Your task to perform on an android device: turn pop-ups on in chrome Image 0: 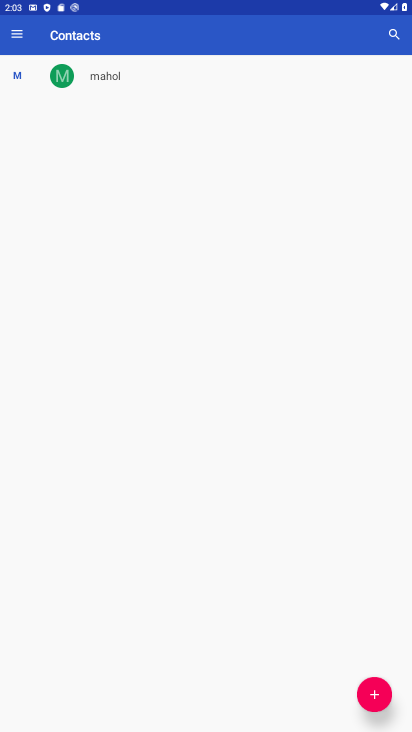
Step 0: press home button
Your task to perform on an android device: turn pop-ups on in chrome Image 1: 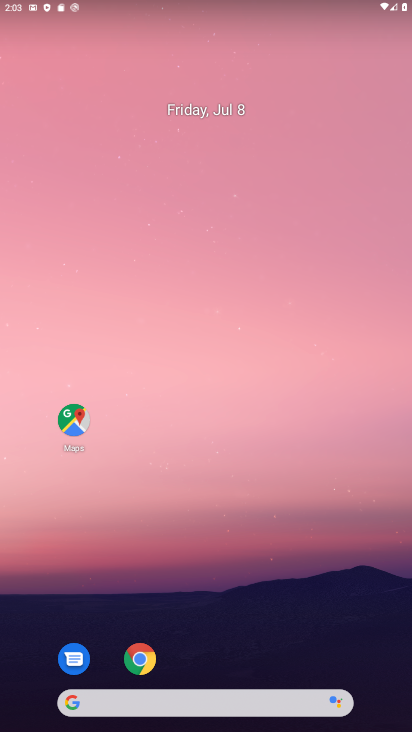
Step 1: drag from (317, 624) to (197, 89)
Your task to perform on an android device: turn pop-ups on in chrome Image 2: 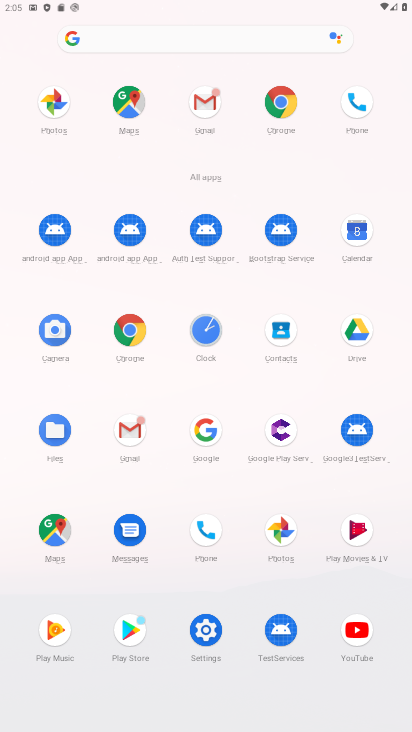
Step 2: click (275, 96)
Your task to perform on an android device: turn pop-ups on in chrome Image 3: 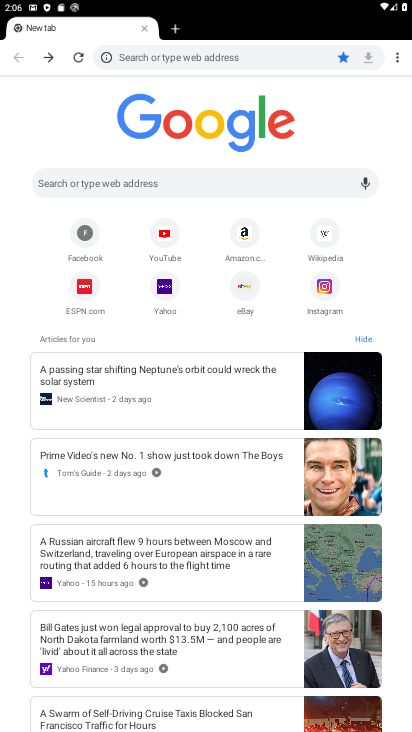
Step 3: drag from (400, 54) to (289, 298)
Your task to perform on an android device: turn pop-ups on in chrome Image 4: 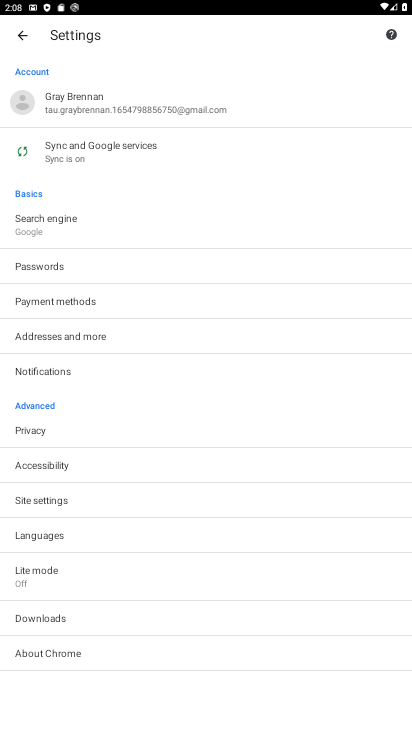
Step 4: click (120, 505)
Your task to perform on an android device: turn pop-ups on in chrome Image 5: 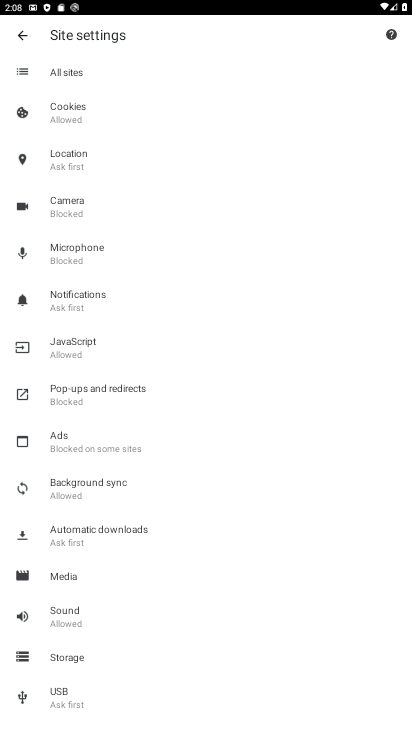
Step 5: click (93, 388)
Your task to perform on an android device: turn pop-ups on in chrome Image 6: 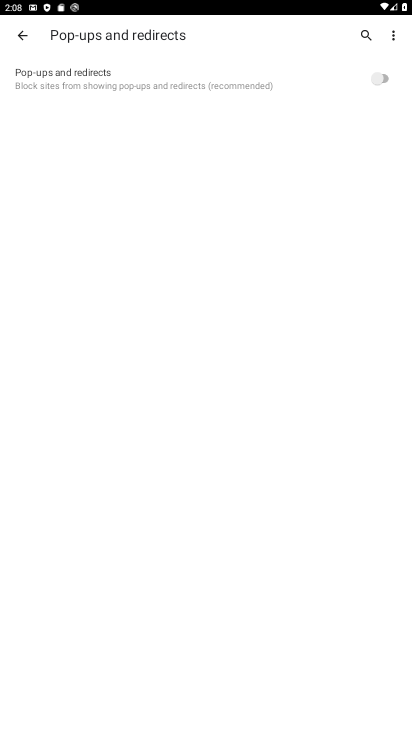
Step 6: click (364, 76)
Your task to perform on an android device: turn pop-ups on in chrome Image 7: 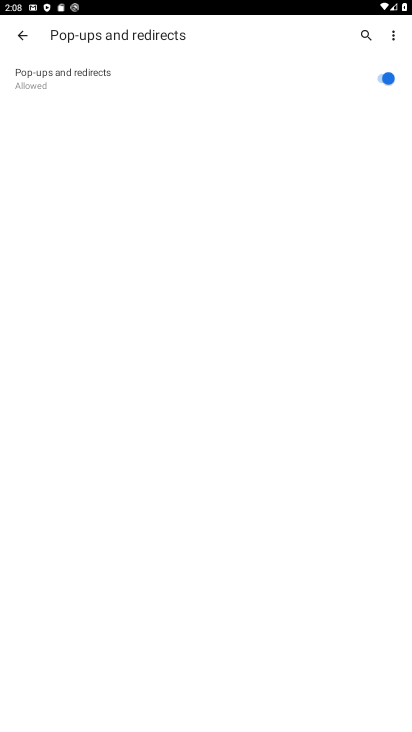
Step 7: task complete